Your task to perform on an android device: make emails show in primary in the gmail app Image 0: 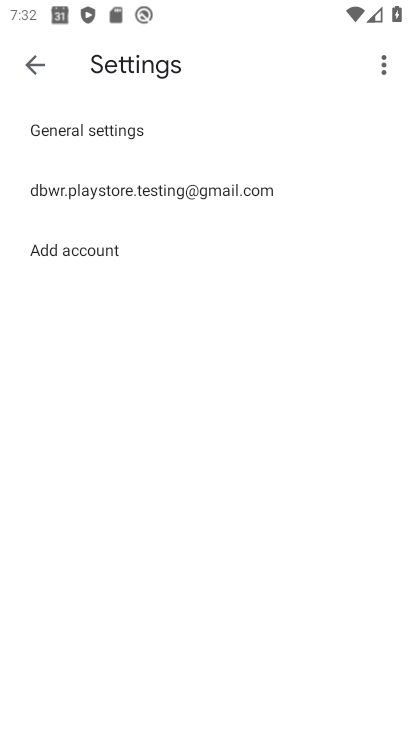
Step 0: press home button
Your task to perform on an android device: make emails show in primary in the gmail app Image 1: 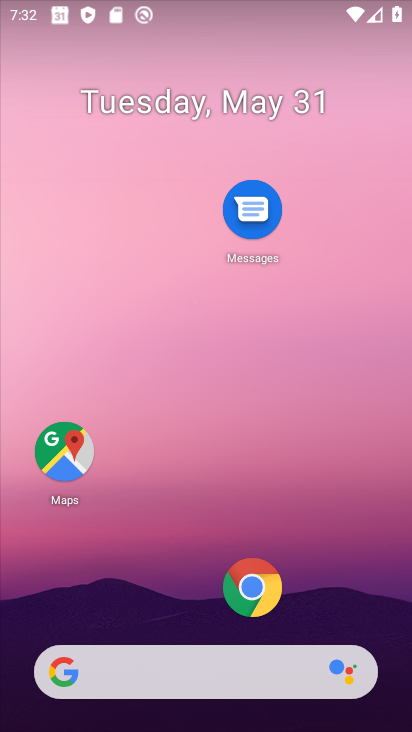
Step 1: drag from (163, 594) to (180, 106)
Your task to perform on an android device: make emails show in primary in the gmail app Image 2: 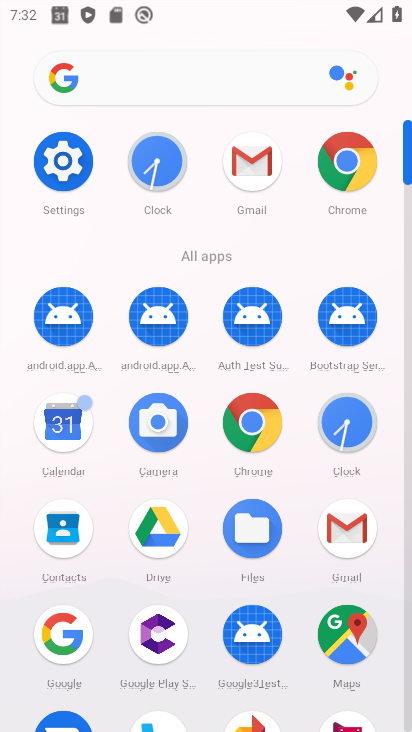
Step 2: click (241, 175)
Your task to perform on an android device: make emails show in primary in the gmail app Image 3: 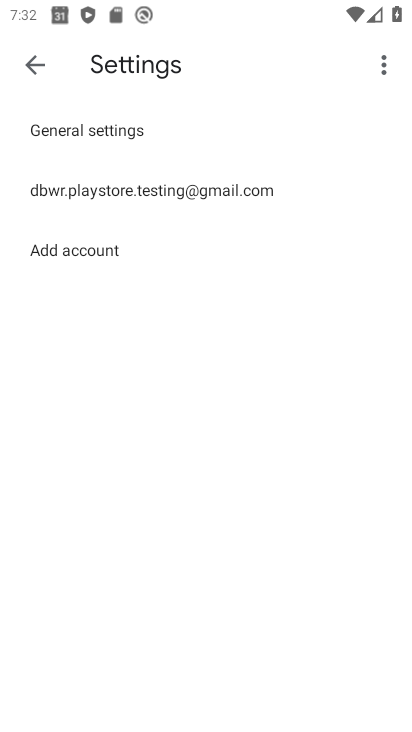
Step 3: click (203, 198)
Your task to perform on an android device: make emails show in primary in the gmail app Image 4: 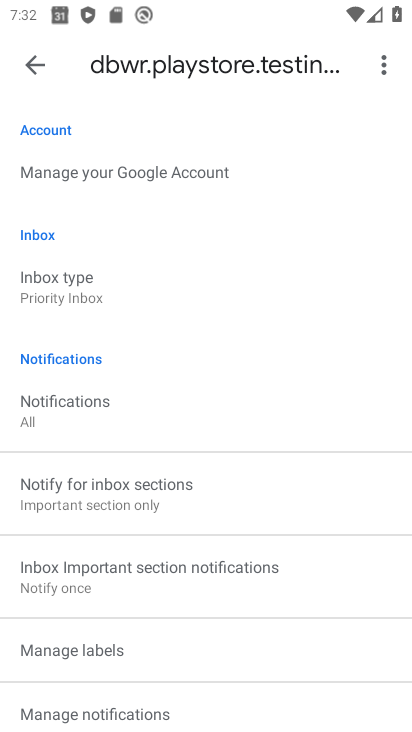
Step 4: click (66, 300)
Your task to perform on an android device: make emails show in primary in the gmail app Image 5: 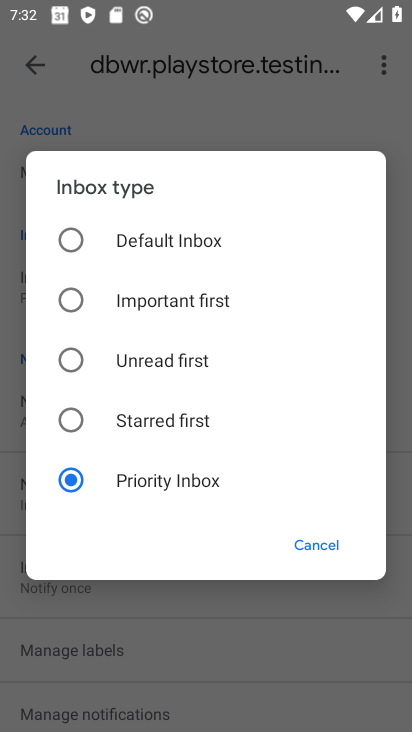
Step 5: click (335, 555)
Your task to perform on an android device: make emails show in primary in the gmail app Image 6: 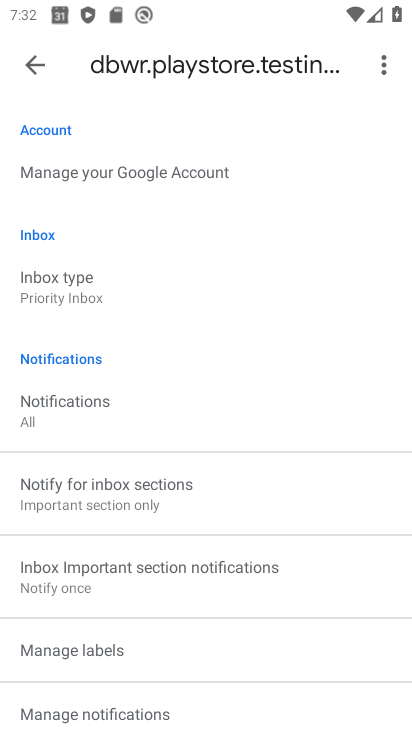
Step 6: task complete